Your task to perform on an android device: Turn off the flashlight Image 0: 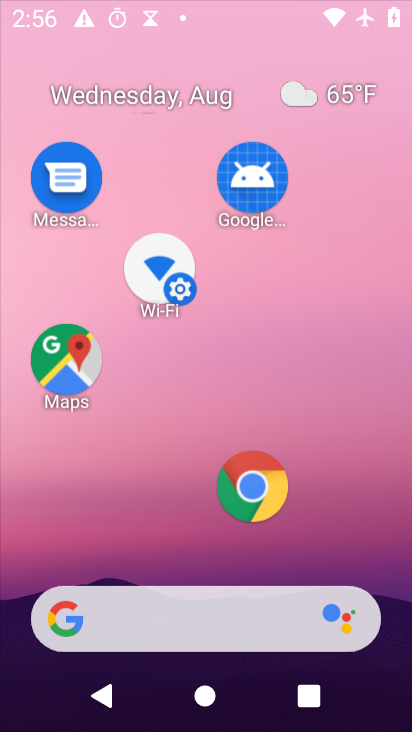
Step 0: press home button
Your task to perform on an android device: Turn off the flashlight Image 1: 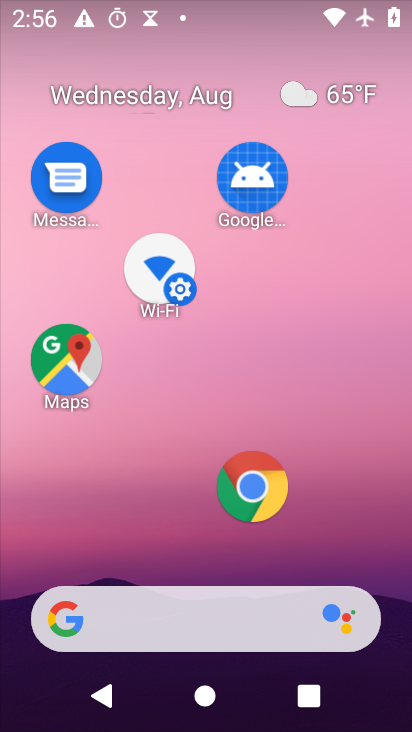
Step 1: task complete